Your task to perform on an android device: find which apps use the phone's location Image 0: 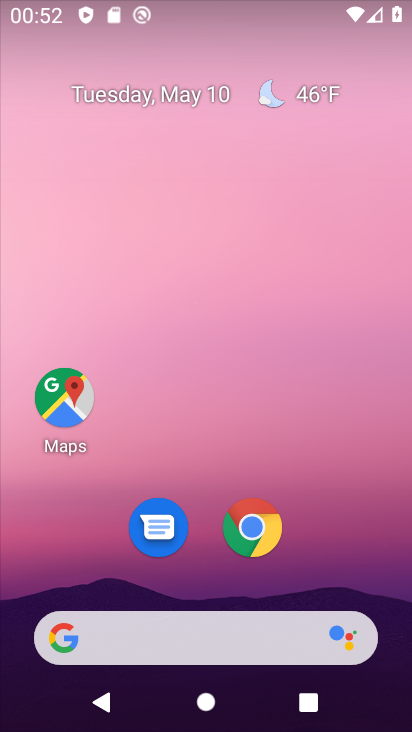
Step 0: drag from (335, 492) to (213, 192)
Your task to perform on an android device: find which apps use the phone's location Image 1: 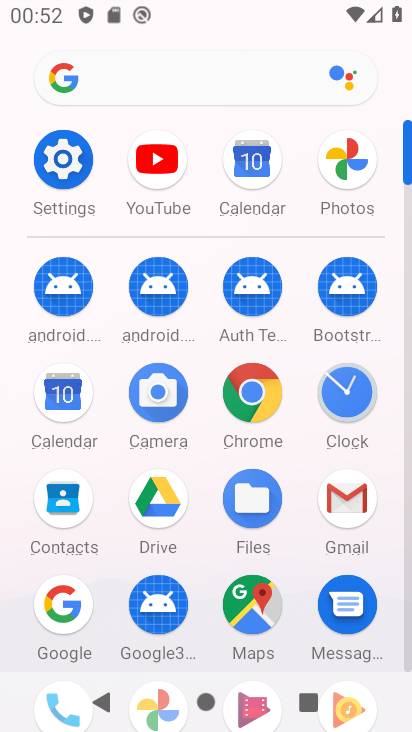
Step 1: click (74, 168)
Your task to perform on an android device: find which apps use the phone's location Image 2: 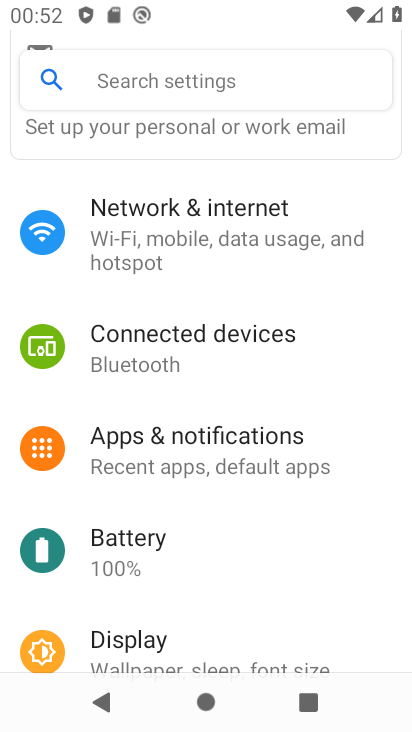
Step 2: drag from (163, 499) to (171, 234)
Your task to perform on an android device: find which apps use the phone's location Image 3: 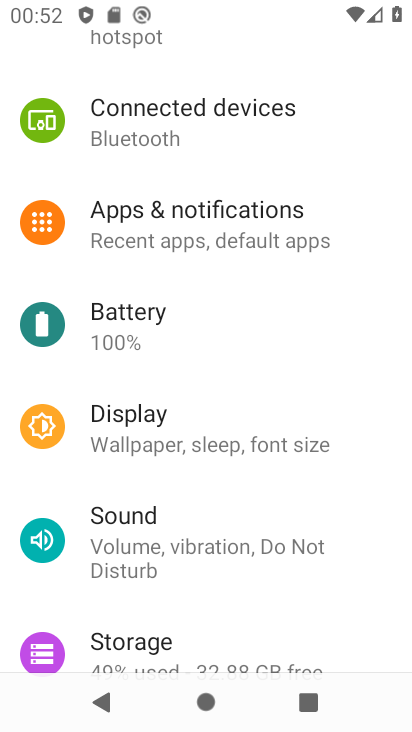
Step 3: drag from (163, 653) to (172, 348)
Your task to perform on an android device: find which apps use the phone's location Image 4: 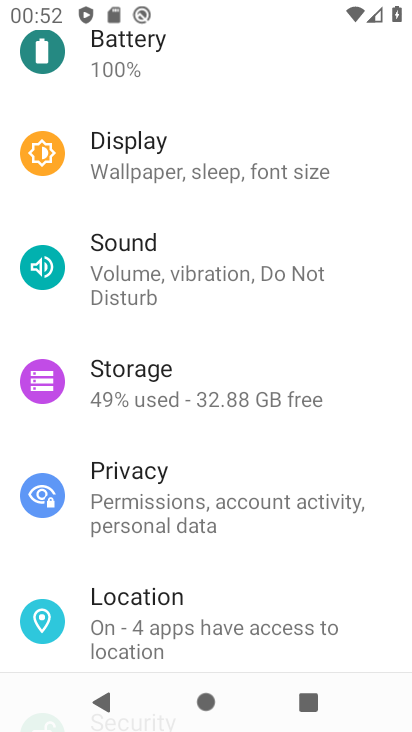
Step 4: click (172, 623)
Your task to perform on an android device: find which apps use the phone's location Image 5: 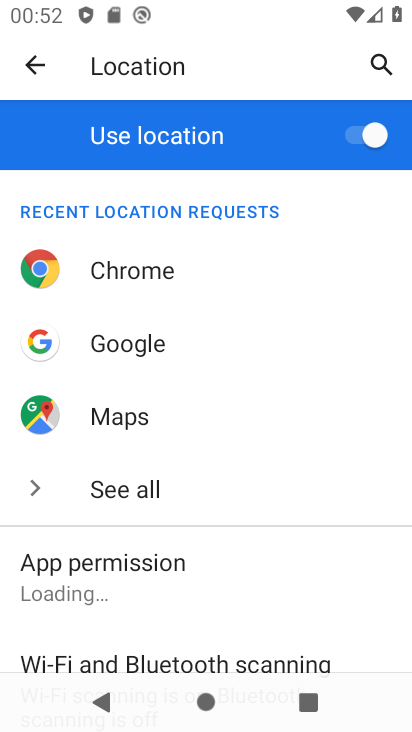
Step 5: click (101, 586)
Your task to perform on an android device: find which apps use the phone's location Image 6: 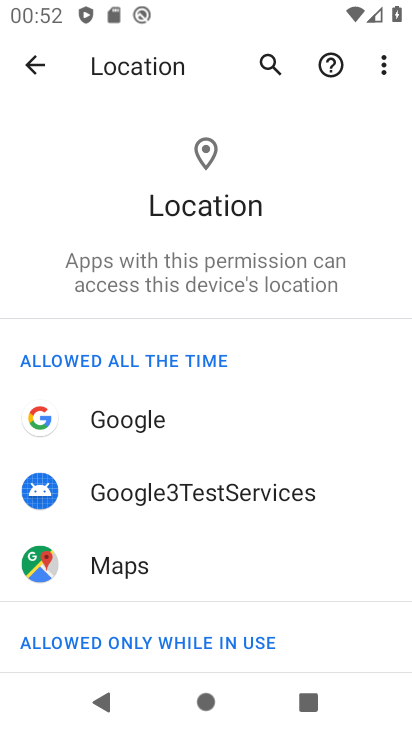
Step 6: task complete